Your task to perform on an android device: Open Yahoo.com Image 0: 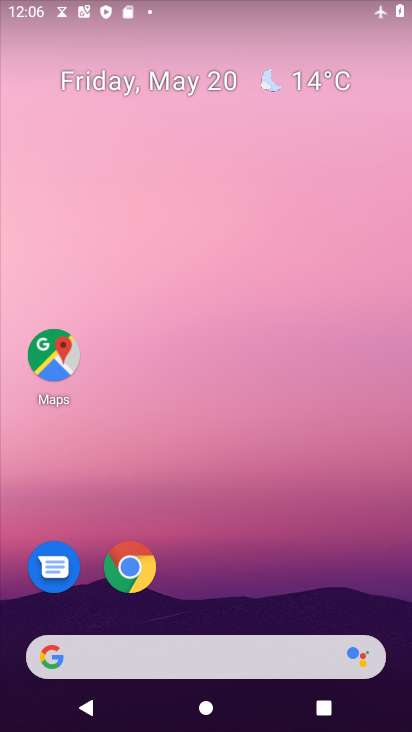
Step 0: drag from (288, 356) to (338, 20)
Your task to perform on an android device: Open Yahoo.com Image 1: 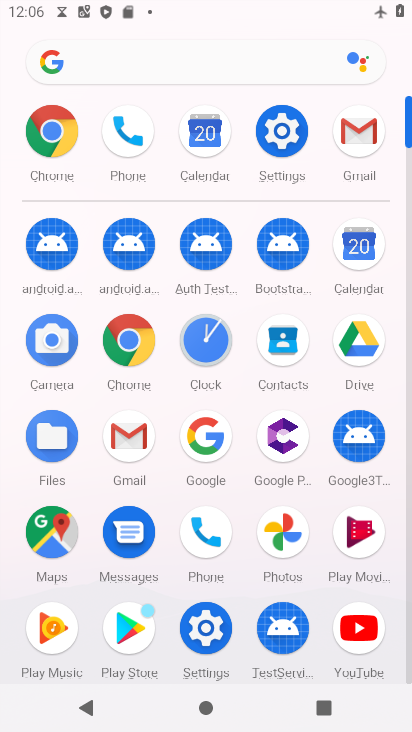
Step 1: click (39, 132)
Your task to perform on an android device: Open Yahoo.com Image 2: 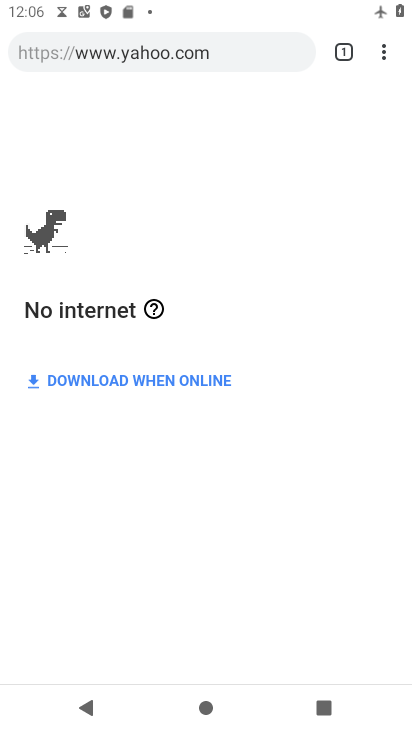
Step 2: click (132, 42)
Your task to perform on an android device: Open Yahoo.com Image 3: 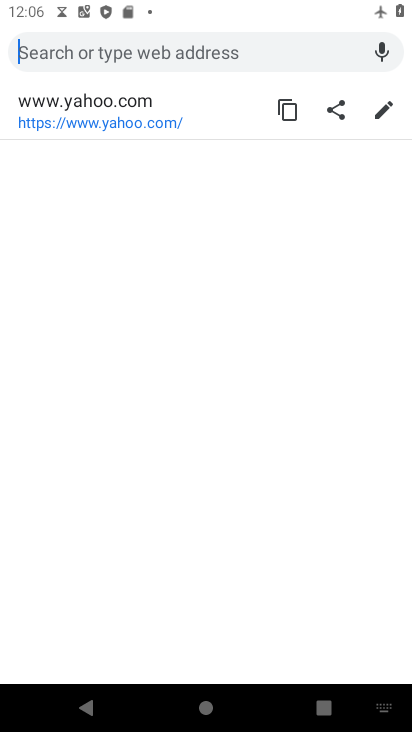
Step 3: click (146, 117)
Your task to perform on an android device: Open Yahoo.com Image 4: 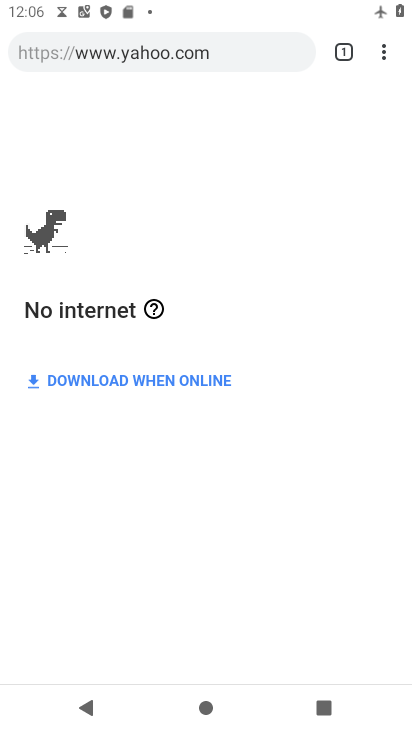
Step 4: task complete